Your task to perform on an android device: When is my next meeting? Image 0: 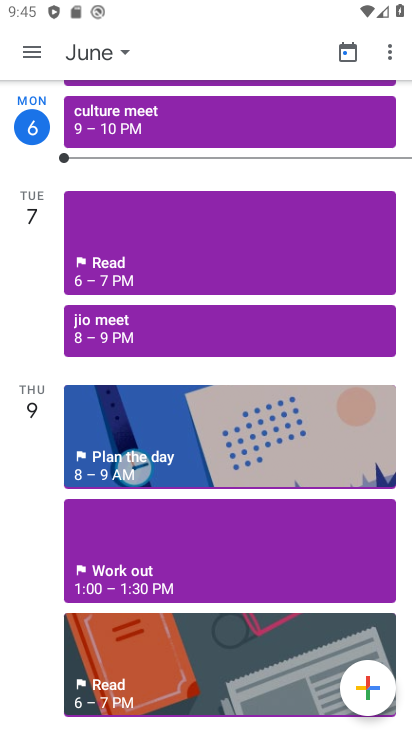
Step 0: task complete